Your task to perform on an android device: Go to Reddit.com Image 0: 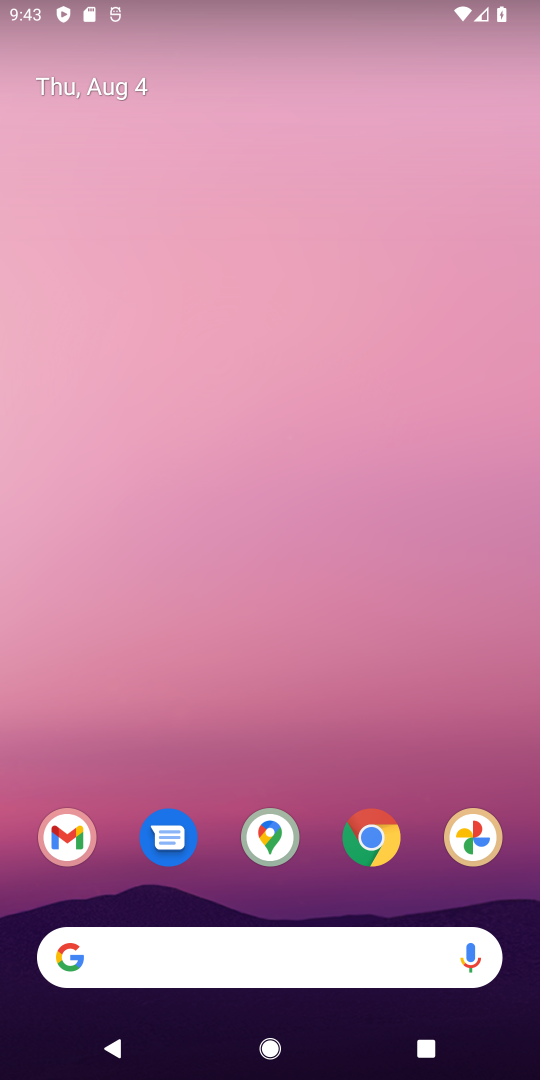
Step 0: drag from (491, 758) to (213, 88)
Your task to perform on an android device: Go to Reddit.com Image 1: 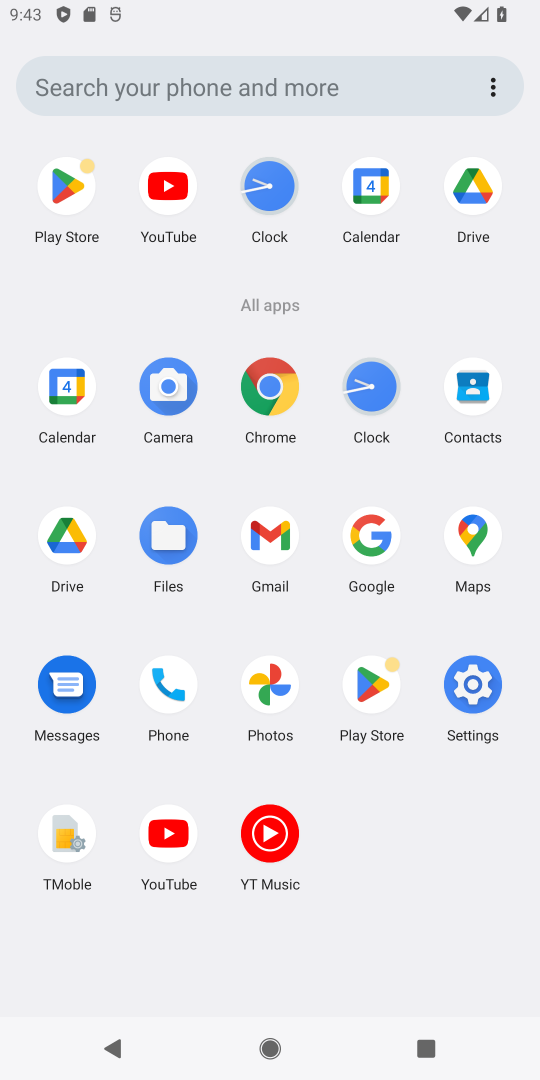
Step 1: click (368, 554)
Your task to perform on an android device: Go to Reddit.com Image 2: 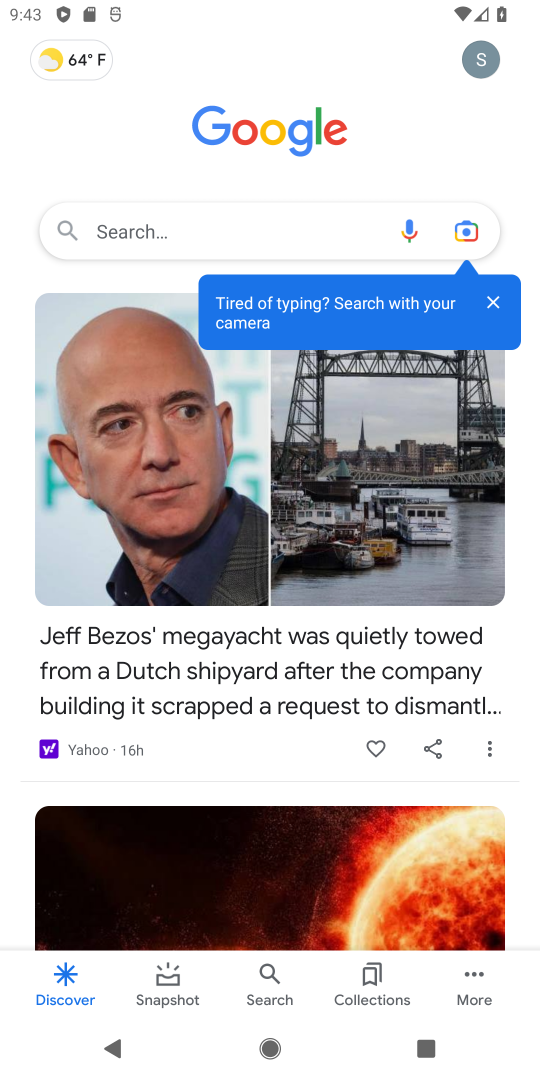
Step 2: click (121, 232)
Your task to perform on an android device: Go to Reddit.com Image 3: 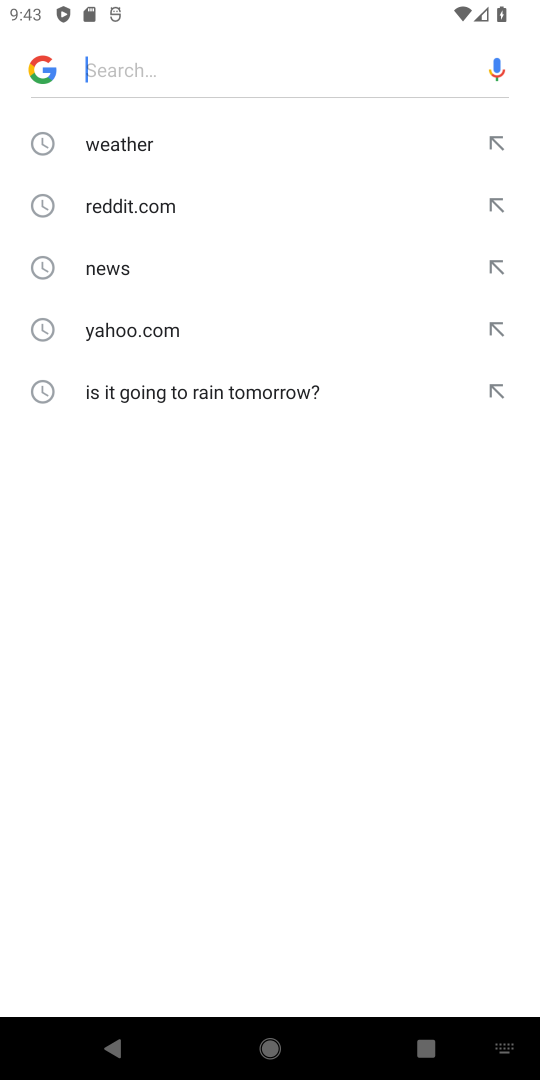
Step 3: type "Reddit.com"
Your task to perform on an android device: Go to Reddit.com Image 4: 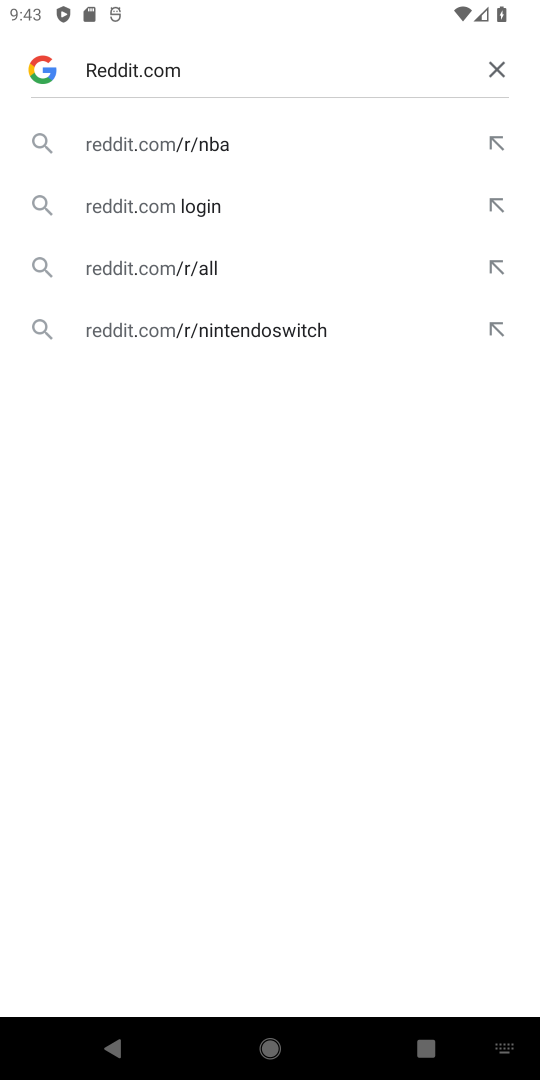
Step 4: click (164, 144)
Your task to perform on an android device: Go to Reddit.com Image 5: 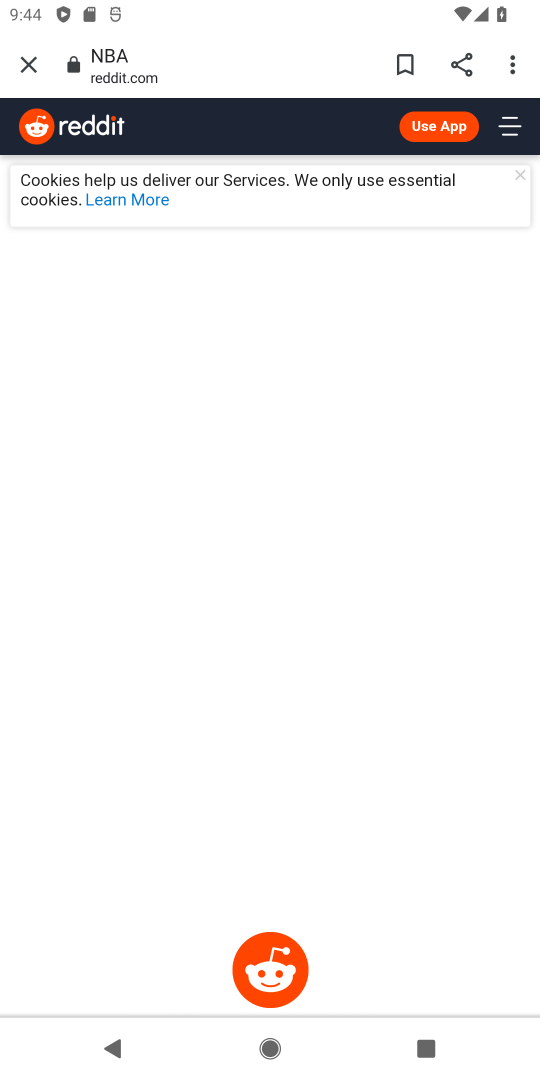
Step 5: task complete